Your task to perform on an android device: choose inbox layout in the gmail app Image 0: 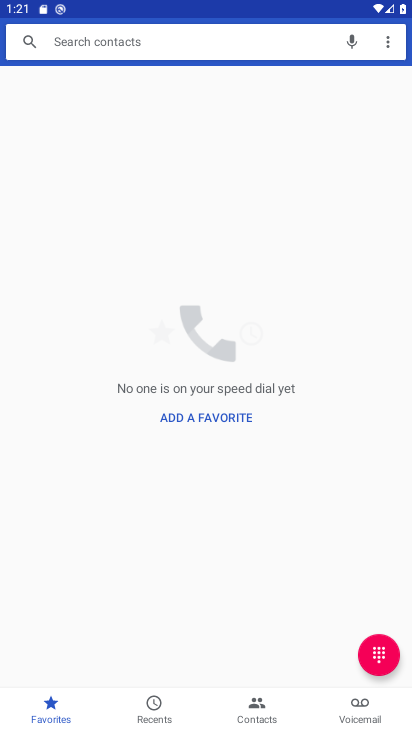
Step 0: press home button
Your task to perform on an android device: choose inbox layout in the gmail app Image 1: 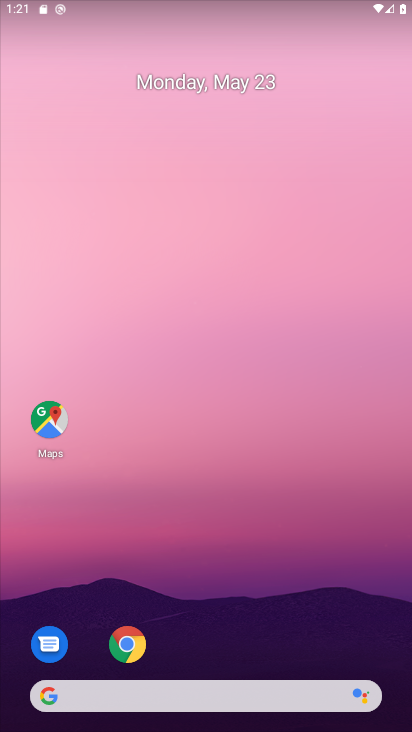
Step 1: drag from (219, 639) to (194, 168)
Your task to perform on an android device: choose inbox layout in the gmail app Image 2: 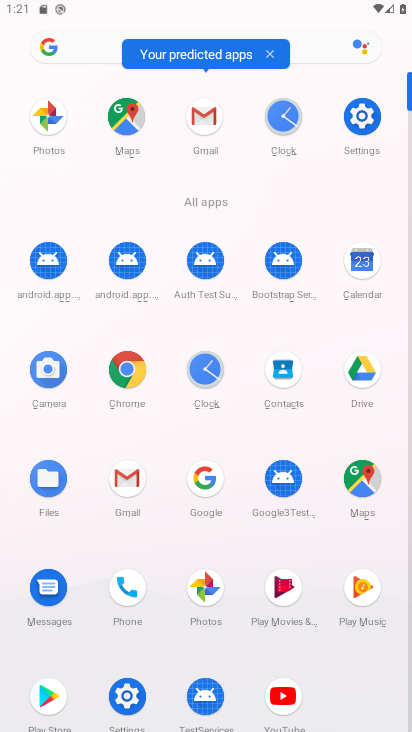
Step 2: click (209, 131)
Your task to perform on an android device: choose inbox layout in the gmail app Image 3: 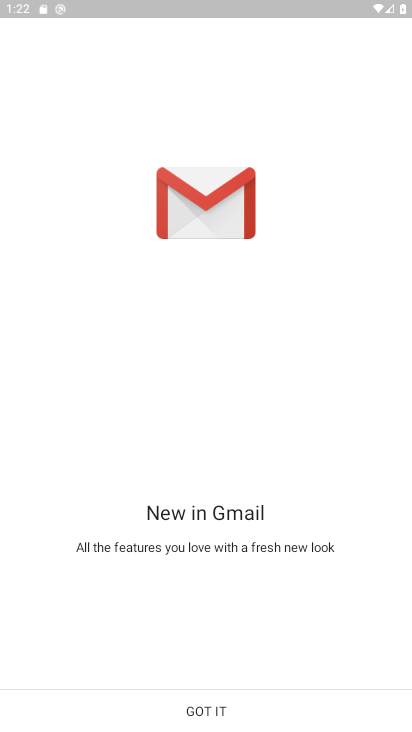
Step 3: click (221, 721)
Your task to perform on an android device: choose inbox layout in the gmail app Image 4: 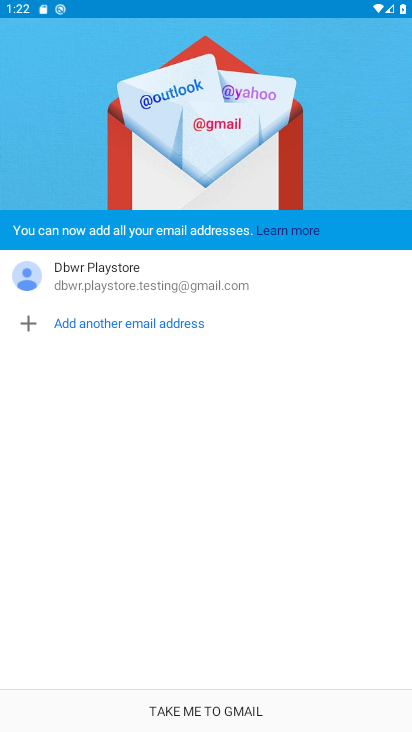
Step 4: click (221, 721)
Your task to perform on an android device: choose inbox layout in the gmail app Image 5: 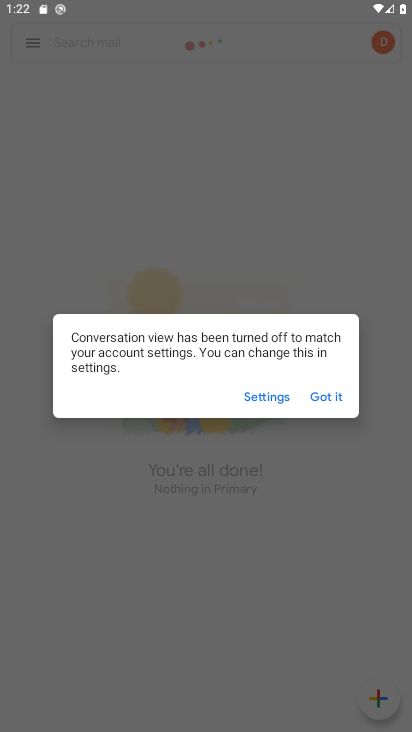
Step 5: click (323, 384)
Your task to perform on an android device: choose inbox layout in the gmail app Image 6: 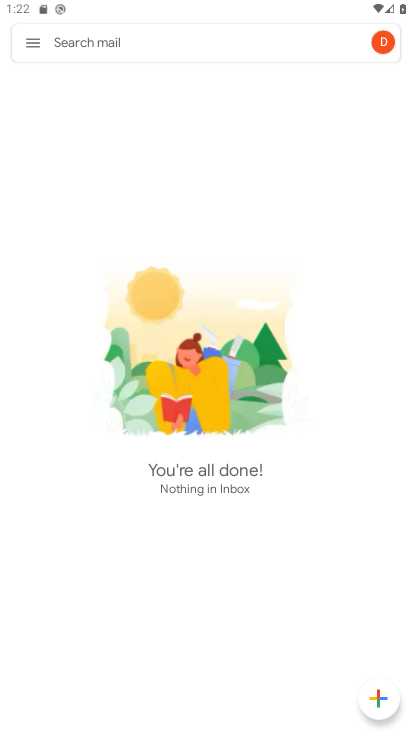
Step 6: click (28, 46)
Your task to perform on an android device: choose inbox layout in the gmail app Image 7: 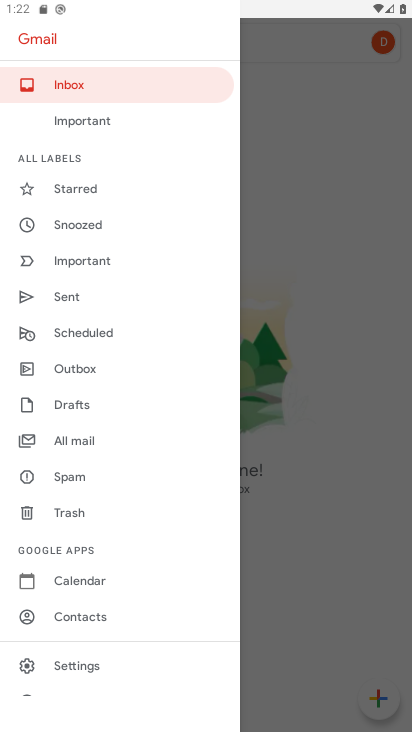
Step 7: click (71, 668)
Your task to perform on an android device: choose inbox layout in the gmail app Image 8: 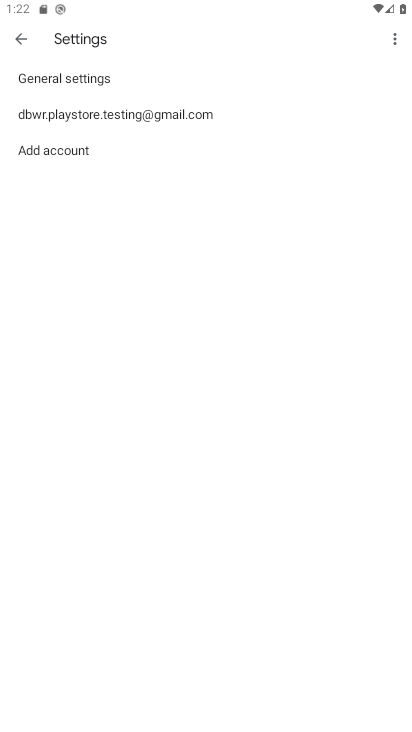
Step 8: click (117, 123)
Your task to perform on an android device: choose inbox layout in the gmail app Image 9: 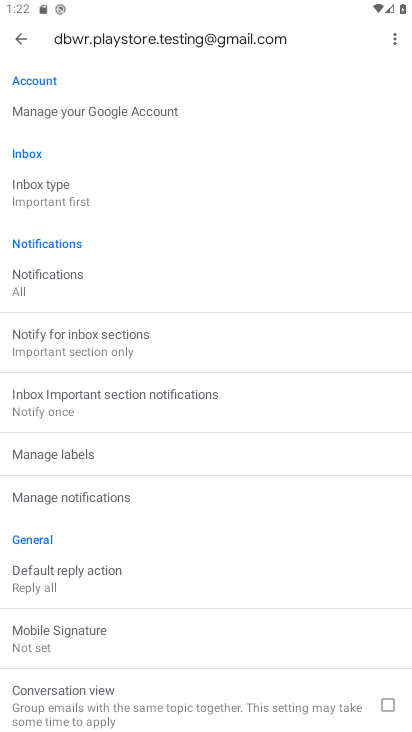
Step 9: click (60, 191)
Your task to perform on an android device: choose inbox layout in the gmail app Image 10: 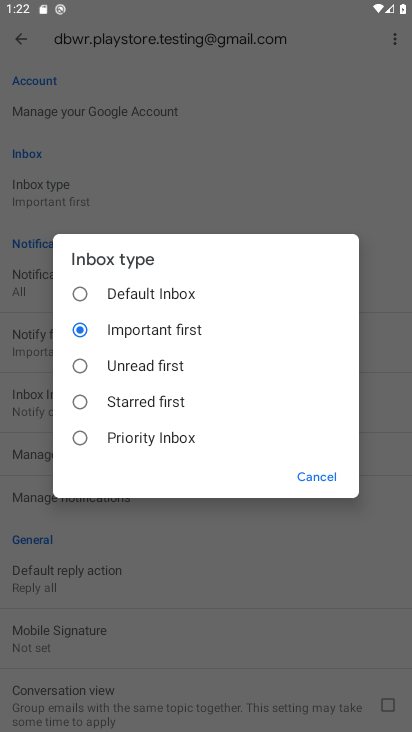
Step 10: click (76, 297)
Your task to perform on an android device: choose inbox layout in the gmail app Image 11: 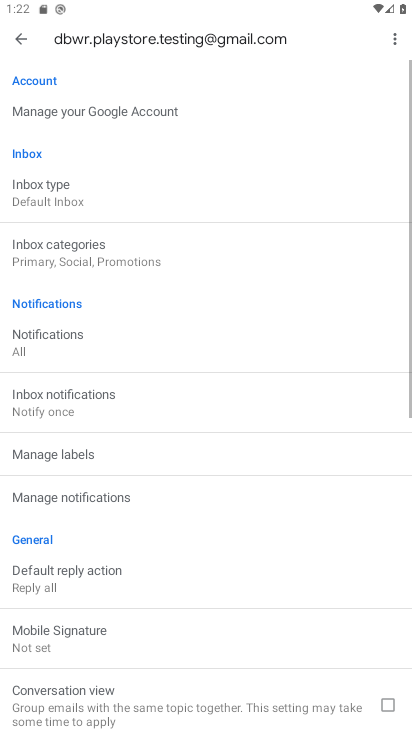
Step 11: task complete